Your task to perform on an android device: Open Chrome and go to settings Image 0: 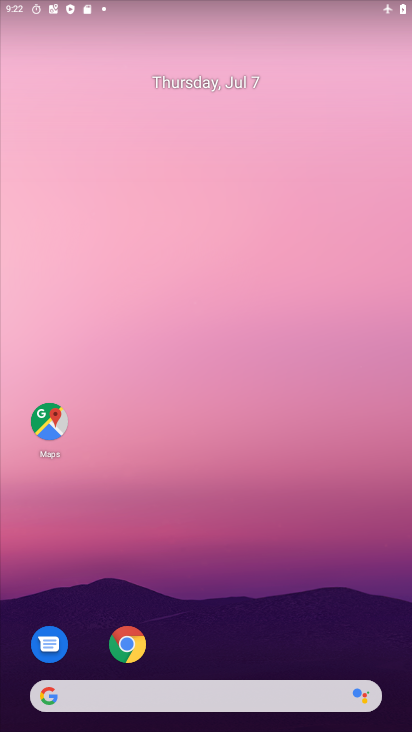
Step 0: click (129, 644)
Your task to perform on an android device: Open Chrome and go to settings Image 1: 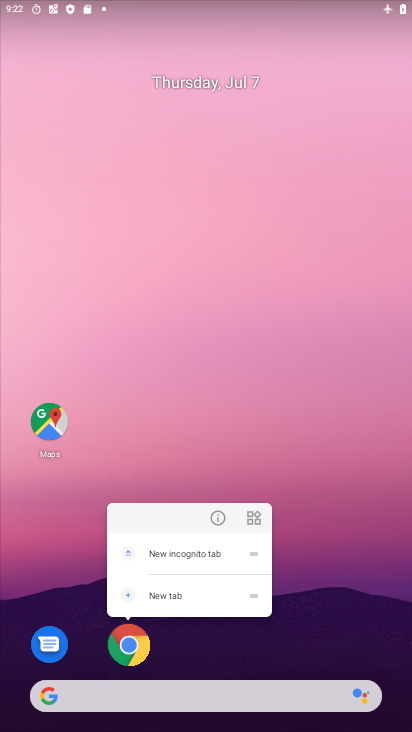
Step 1: click (129, 644)
Your task to perform on an android device: Open Chrome and go to settings Image 2: 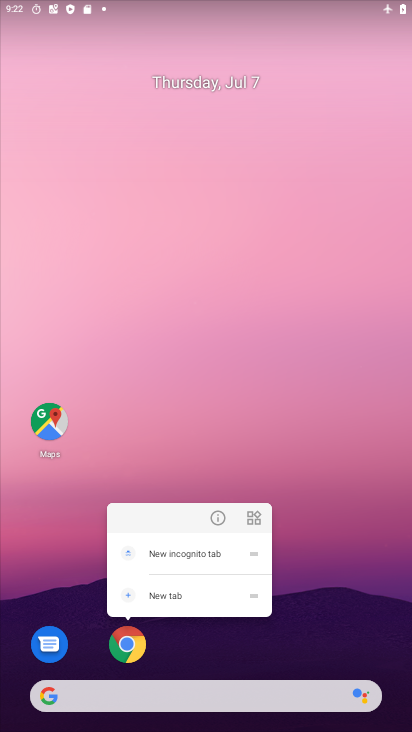
Step 2: click (129, 644)
Your task to perform on an android device: Open Chrome and go to settings Image 3: 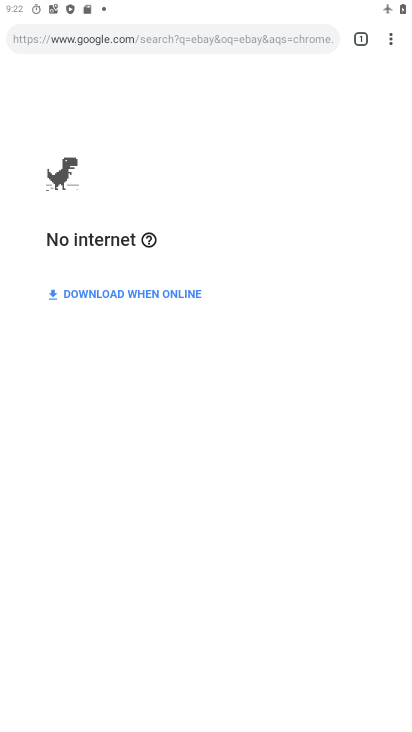
Step 3: click (387, 37)
Your task to perform on an android device: Open Chrome and go to settings Image 4: 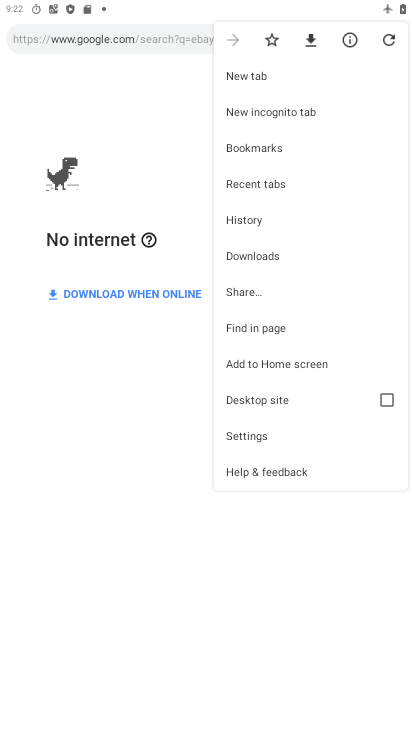
Step 4: click (239, 438)
Your task to perform on an android device: Open Chrome and go to settings Image 5: 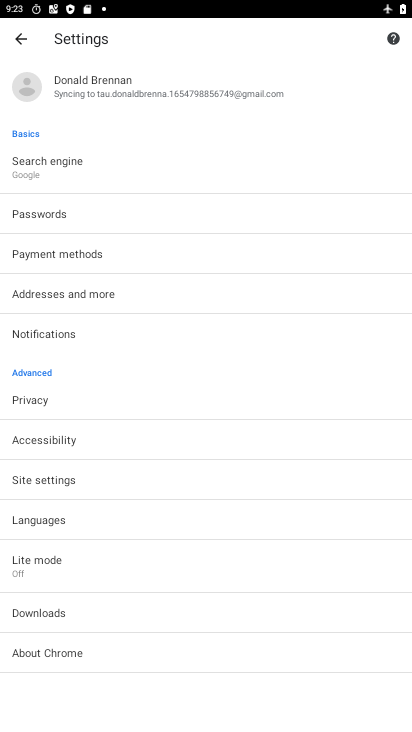
Step 5: task complete